Your task to perform on an android device: Go to Wikipedia Image 0: 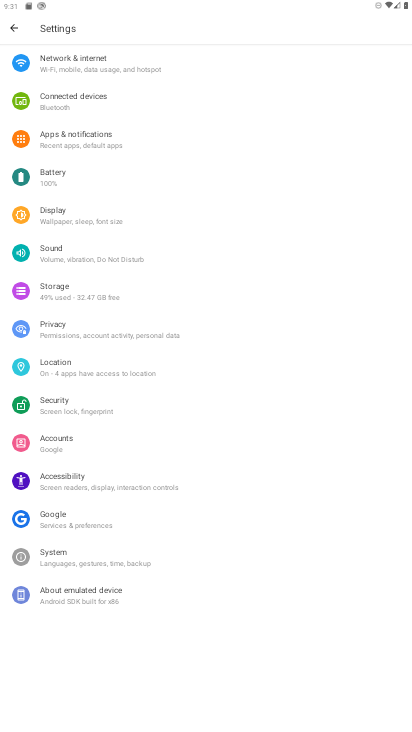
Step 0: press home button
Your task to perform on an android device: Go to Wikipedia Image 1: 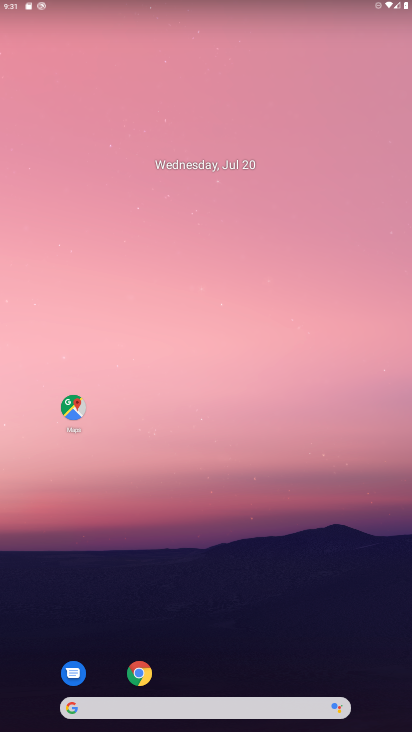
Step 1: click (251, 86)
Your task to perform on an android device: Go to Wikipedia Image 2: 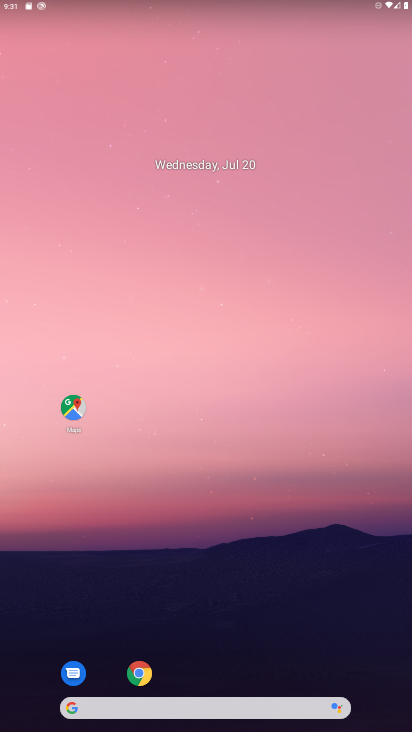
Step 2: drag from (176, 668) to (222, 97)
Your task to perform on an android device: Go to Wikipedia Image 3: 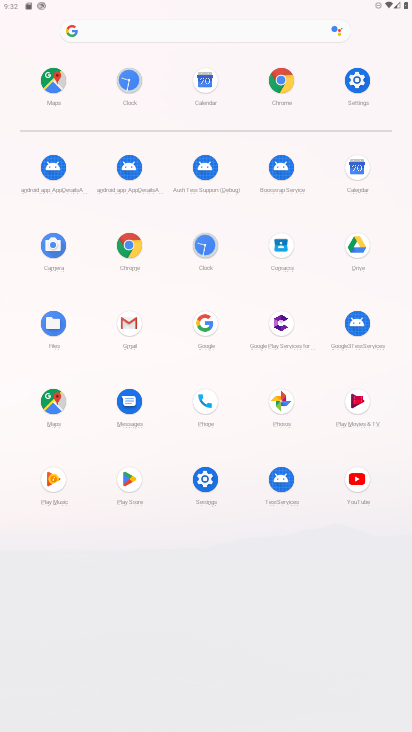
Step 3: click (142, 29)
Your task to perform on an android device: Go to Wikipedia Image 4: 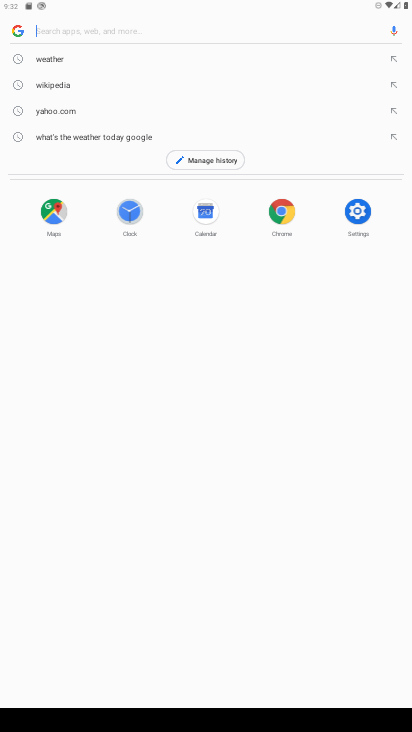
Step 4: click (69, 82)
Your task to perform on an android device: Go to Wikipedia Image 5: 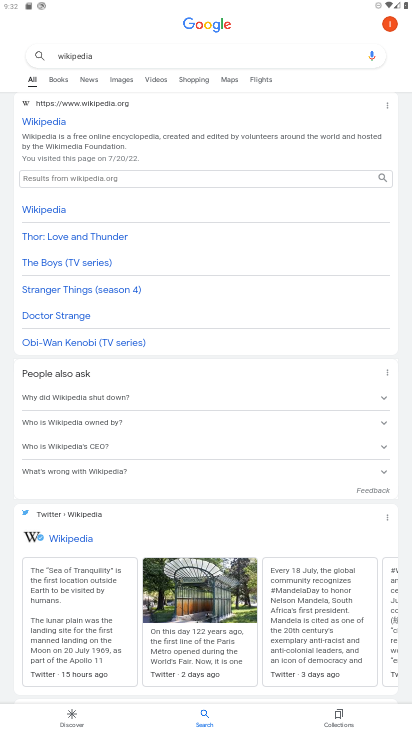
Step 5: click (40, 118)
Your task to perform on an android device: Go to Wikipedia Image 6: 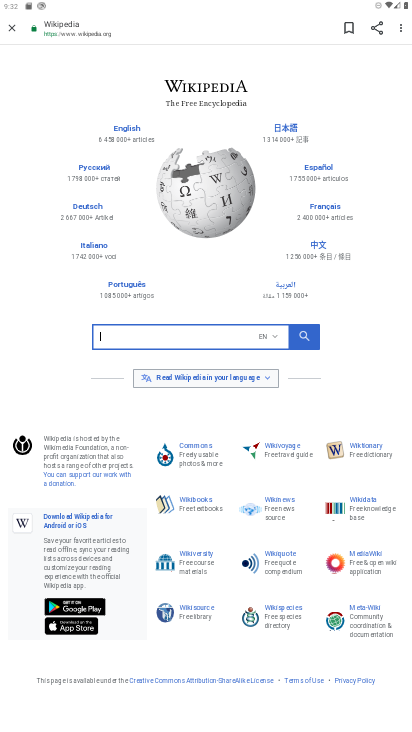
Step 6: task complete